Your task to perform on an android device: Open Google Maps and go to "Timeline" Image 0: 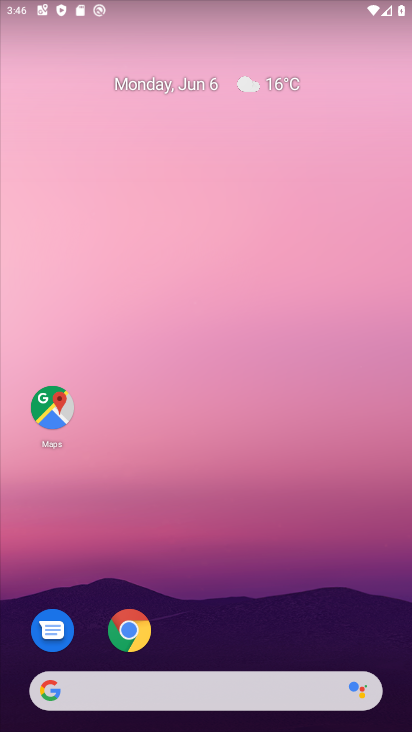
Step 0: click (59, 394)
Your task to perform on an android device: Open Google Maps and go to "Timeline" Image 1: 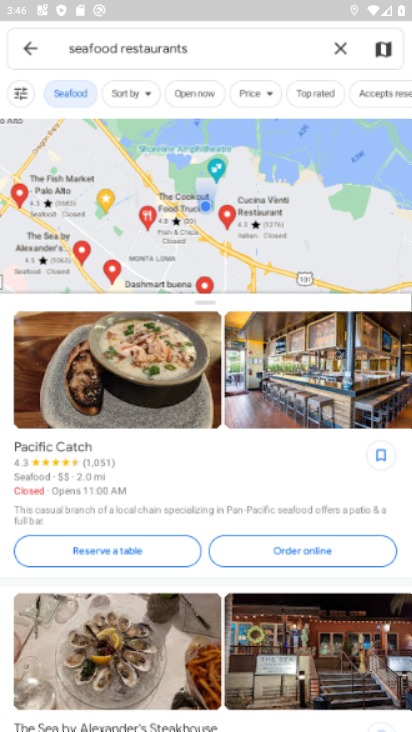
Step 1: click (35, 32)
Your task to perform on an android device: Open Google Maps and go to "Timeline" Image 2: 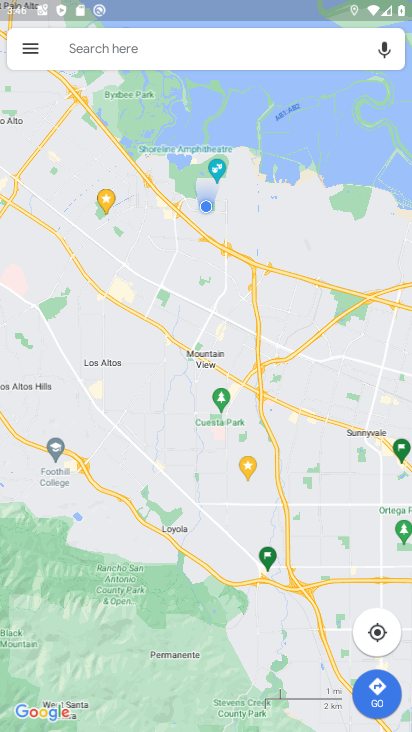
Step 2: click (27, 50)
Your task to perform on an android device: Open Google Maps and go to "Timeline" Image 3: 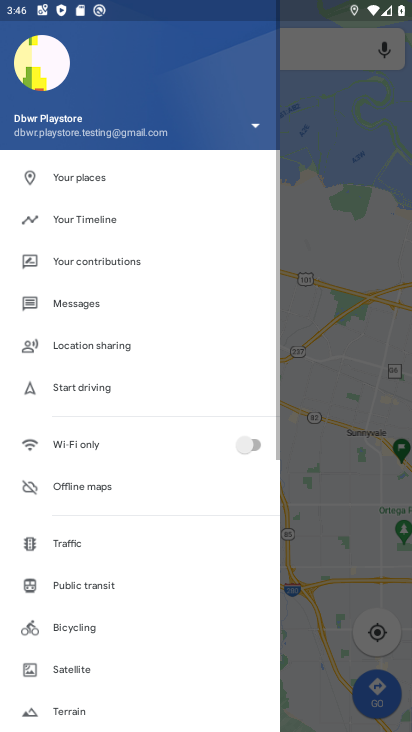
Step 3: click (107, 220)
Your task to perform on an android device: Open Google Maps and go to "Timeline" Image 4: 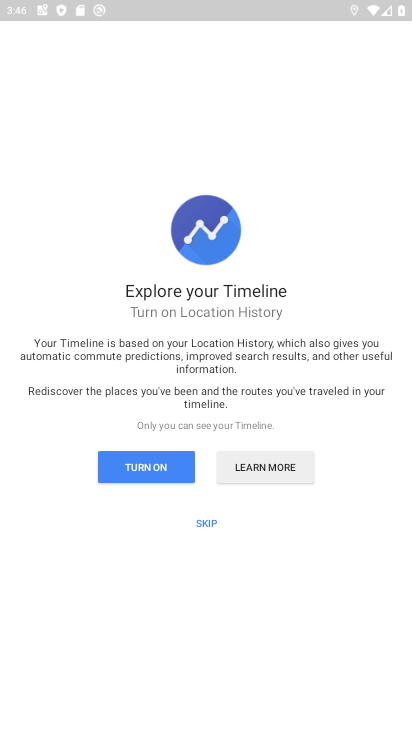
Step 4: click (195, 528)
Your task to perform on an android device: Open Google Maps and go to "Timeline" Image 5: 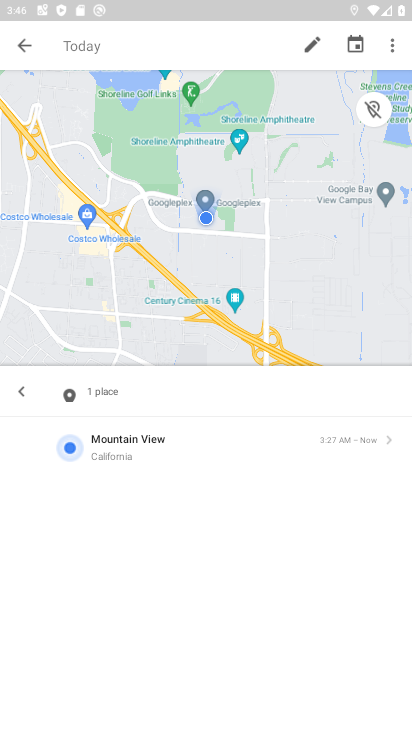
Step 5: click (33, 33)
Your task to perform on an android device: Open Google Maps and go to "Timeline" Image 6: 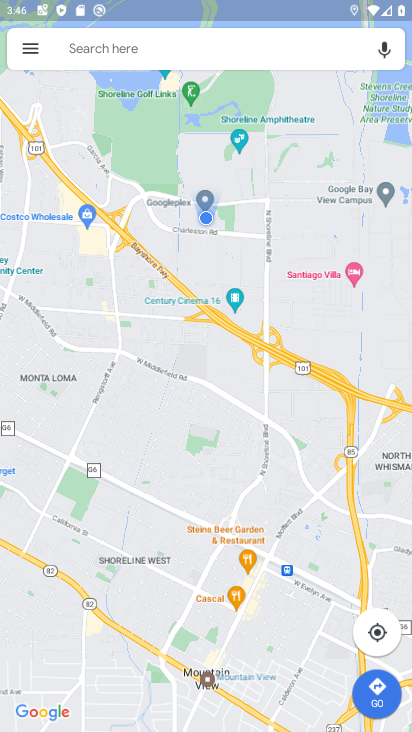
Step 6: click (33, 44)
Your task to perform on an android device: Open Google Maps and go to "Timeline" Image 7: 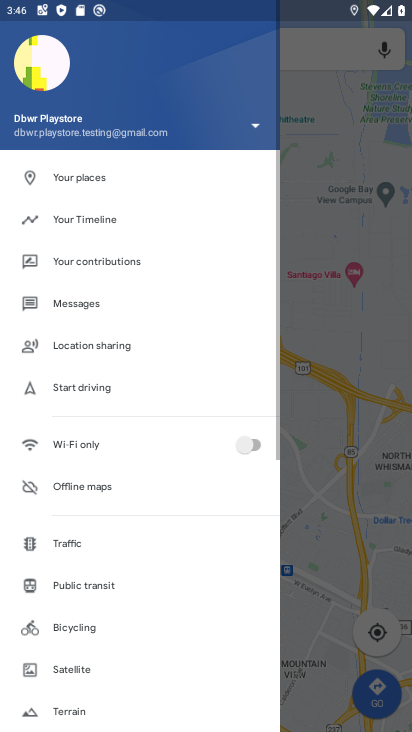
Step 7: click (120, 224)
Your task to perform on an android device: Open Google Maps and go to "Timeline" Image 8: 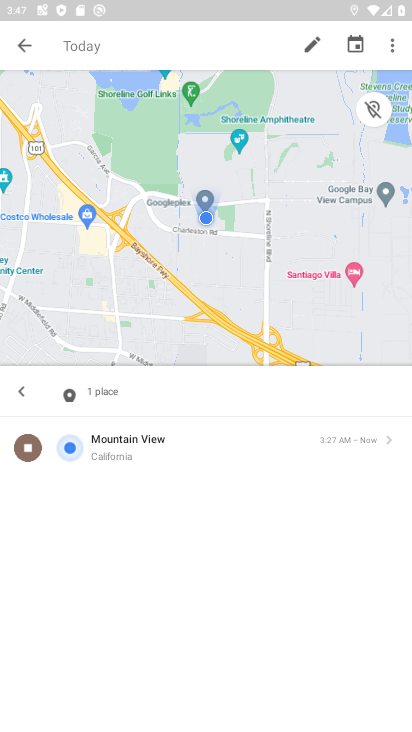
Step 8: task complete